Your task to perform on an android device: check battery use Image 0: 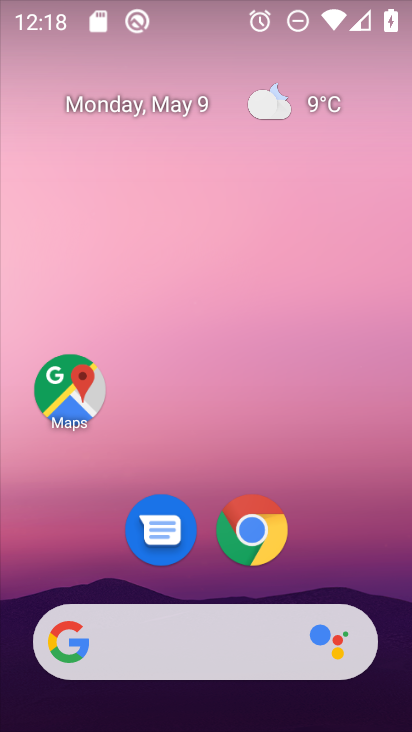
Step 0: drag from (211, 580) to (275, 57)
Your task to perform on an android device: check battery use Image 1: 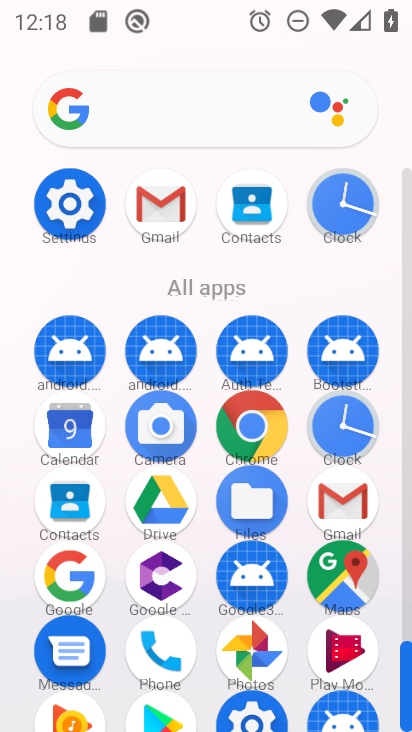
Step 1: click (51, 215)
Your task to perform on an android device: check battery use Image 2: 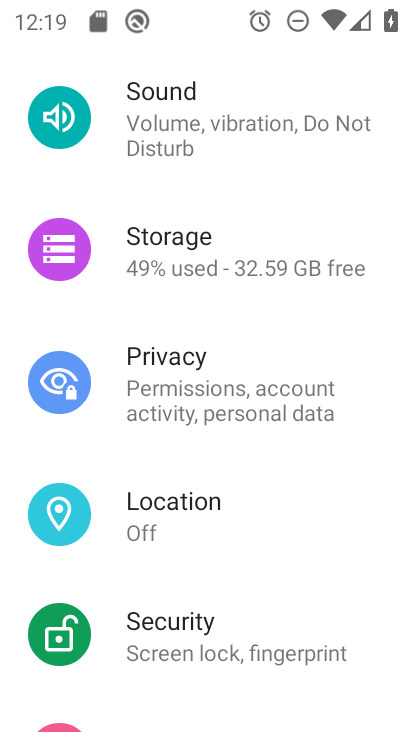
Step 2: drag from (224, 176) to (182, 610)
Your task to perform on an android device: check battery use Image 3: 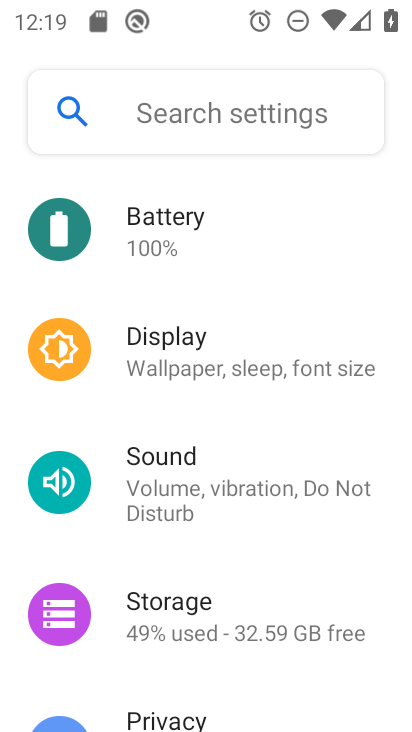
Step 3: click (232, 260)
Your task to perform on an android device: check battery use Image 4: 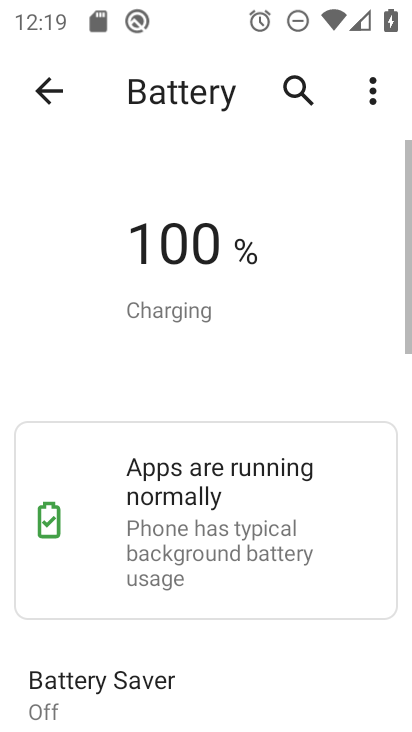
Step 4: click (385, 91)
Your task to perform on an android device: check battery use Image 5: 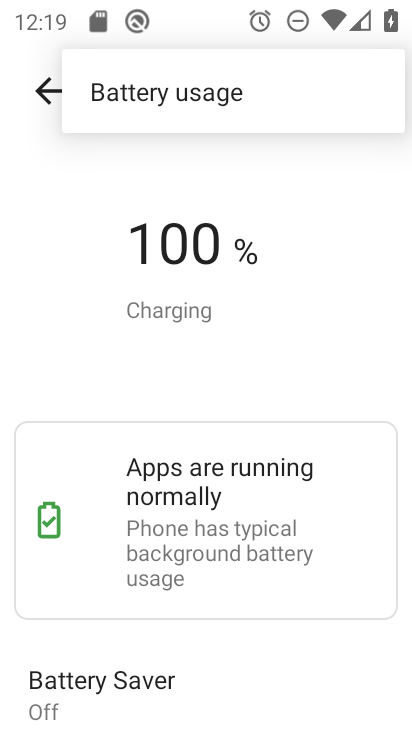
Step 5: click (306, 86)
Your task to perform on an android device: check battery use Image 6: 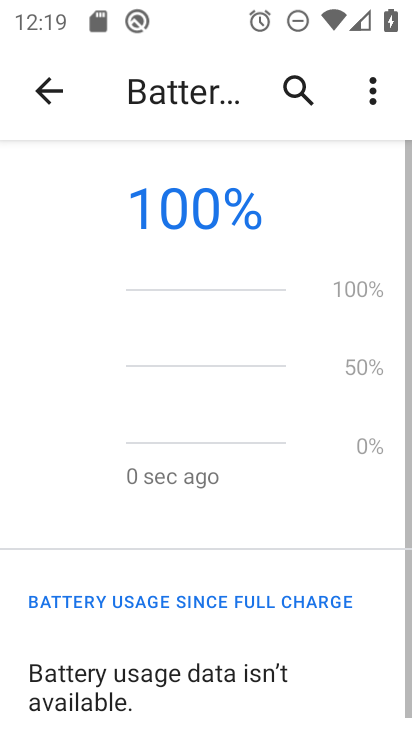
Step 6: task complete